Your task to perform on an android device: Open calendar and show me the first week of next month Image 0: 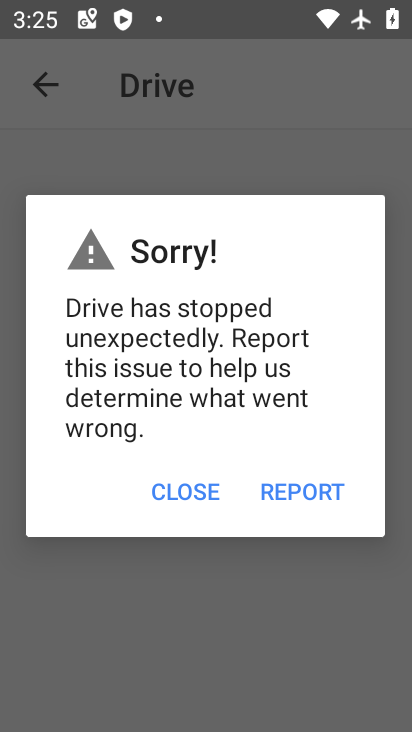
Step 0: press home button
Your task to perform on an android device: Open calendar and show me the first week of next month Image 1: 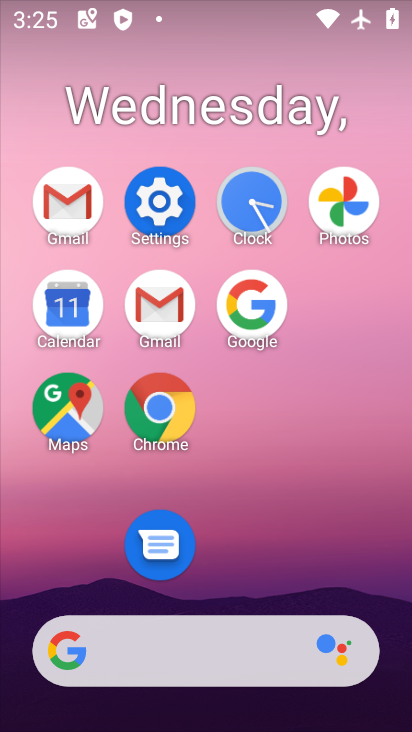
Step 1: click (73, 311)
Your task to perform on an android device: Open calendar and show me the first week of next month Image 2: 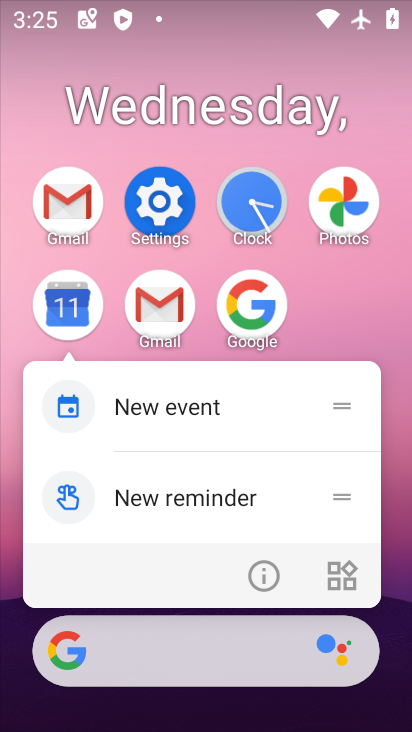
Step 2: click (78, 318)
Your task to perform on an android device: Open calendar and show me the first week of next month Image 3: 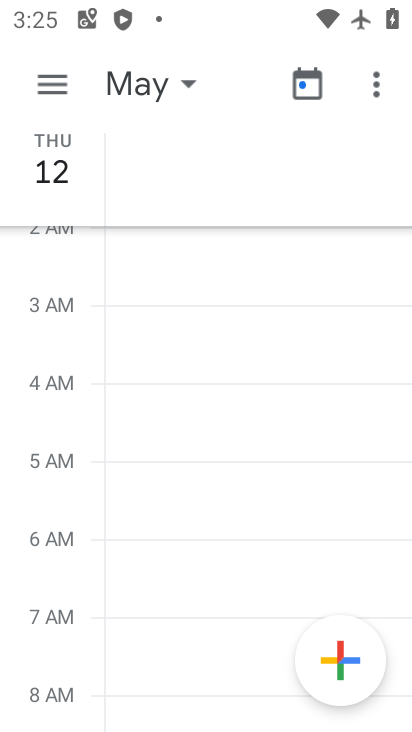
Step 3: click (185, 89)
Your task to perform on an android device: Open calendar and show me the first week of next month Image 4: 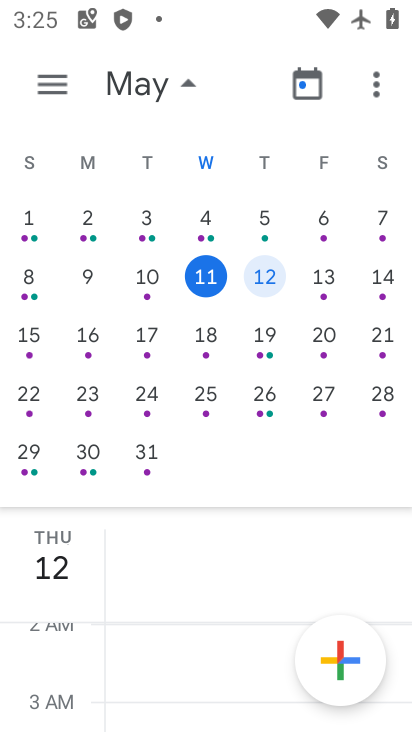
Step 4: drag from (395, 330) to (0, 269)
Your task to perform on an android device: Open calendar and show me the first week of next month Image 5: 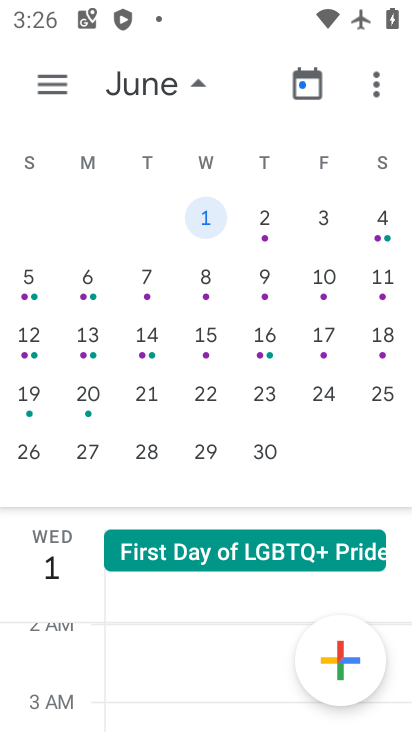
Step 5: click (64, 84)
Your task to perform on an android device: Open calendar and show me the first week of next month Image 6: 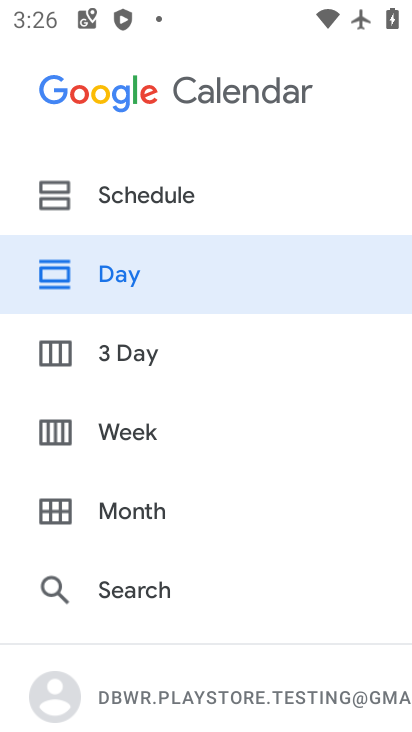
Step 6: click (161, 428)
Your task to perform on an android device: Open calendar and show me the first week of next month Image 7: 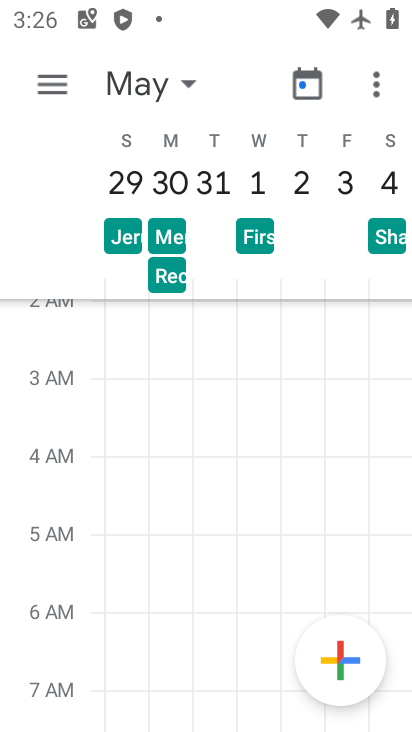
Step 7: task complete